Your task to perform on an android device: Check the weather Image 0: 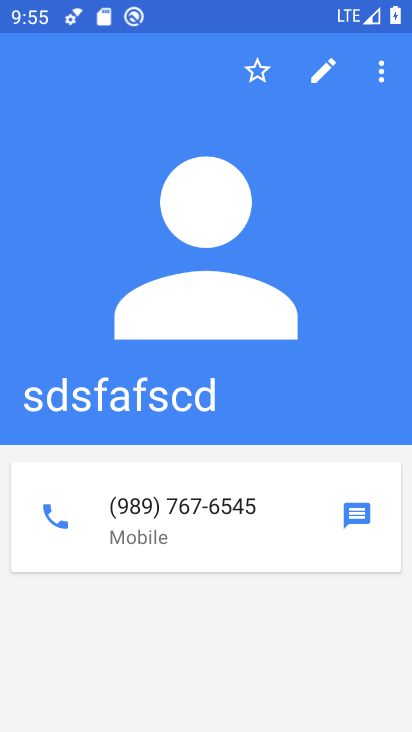
Step 0: press home button
Your task to perform on an android device: Check the weather Image 1: 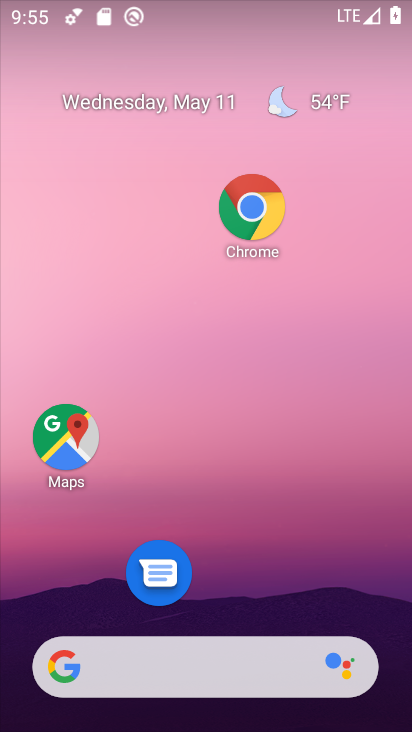
Step 1: drag from (119, 628) to (174, 19)
Your task to perform on an android device: Check the weather Image 2: 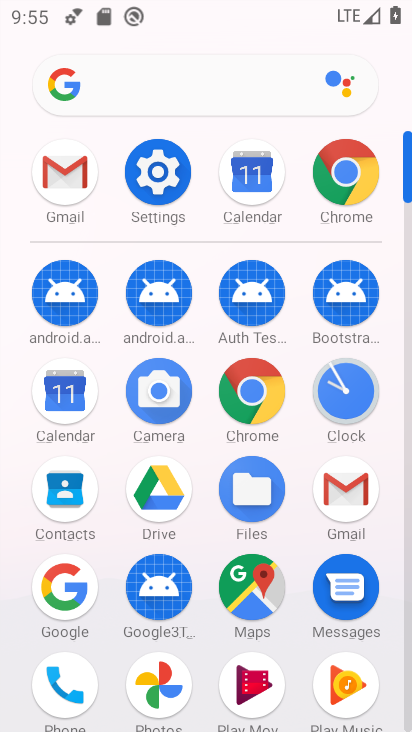
Step 2: click (249, 406)
Your task to perform on an android device: Check the weather Image 3: 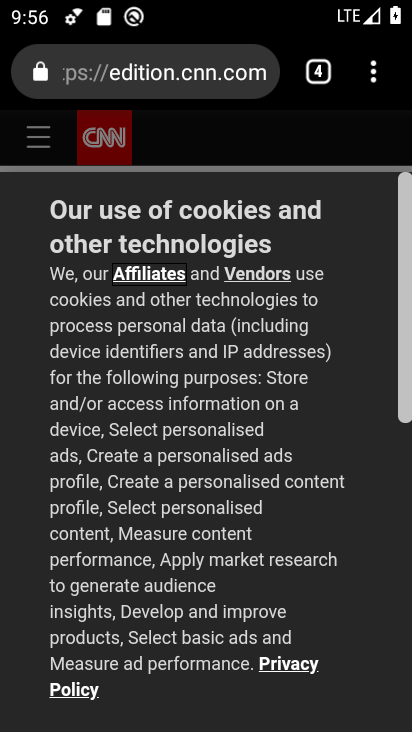
Step 3: click (219, 80)
Your task to perform on an android device: Check the weather Image 4: 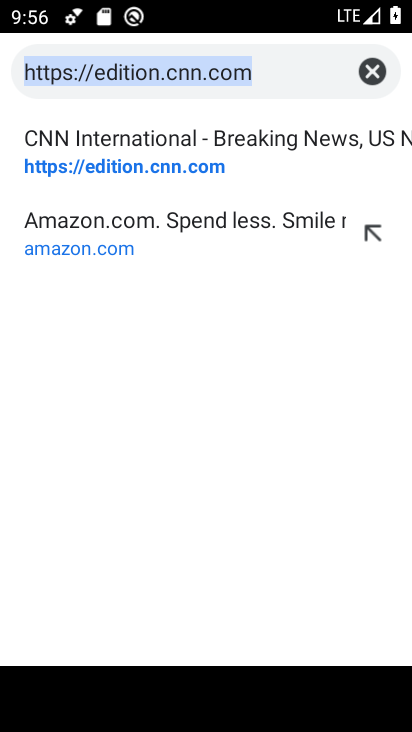
Step 4: click (372, 78)
Your task to perform on an android device: Check the weather Image 5: 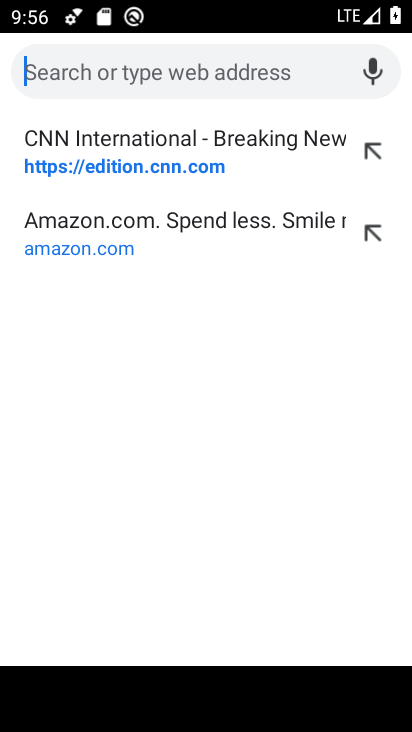
Step 5: type "check the weather"
Your task to perform on an android device: Check the weather Image 6: 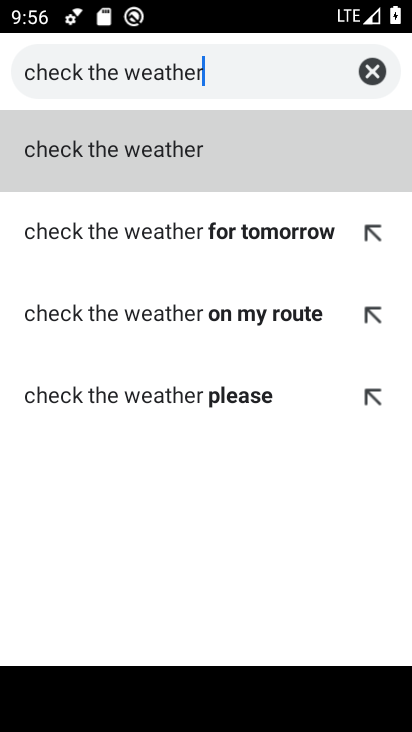
Step 6: click (228, 132)
Your task to perform on an android device: Check the weather Image 7: 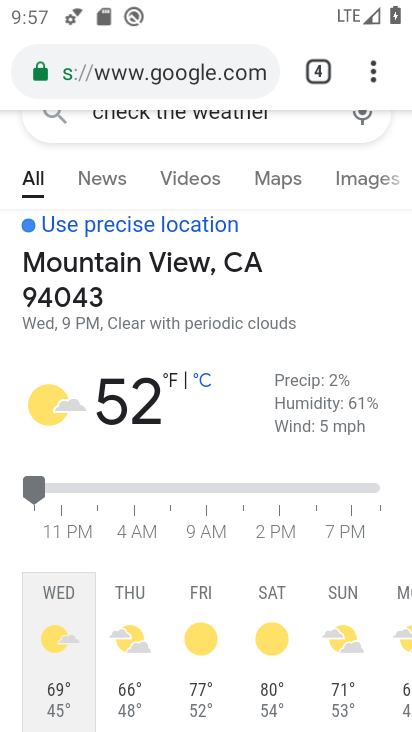
Step 7: task complete